Your task to perform on an android device: Go to network settings Image 0: 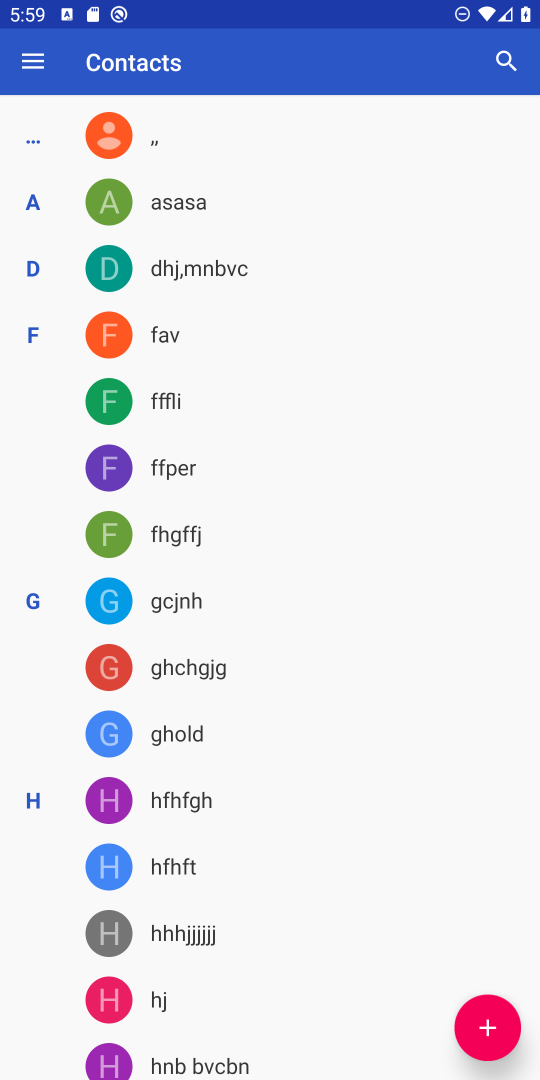
Step 0: press home button
Your task to perform on an android device: Go to network settings Image 1: 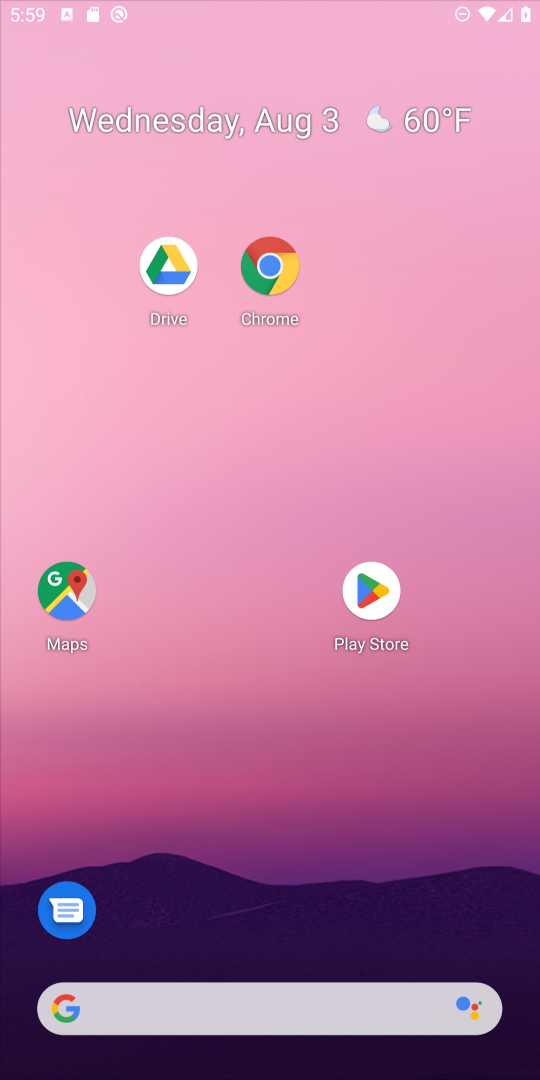
Step 1: drag from (281, 1019) to (385, 78)
Your task to perform on an android device: Go to network settings Image 2: 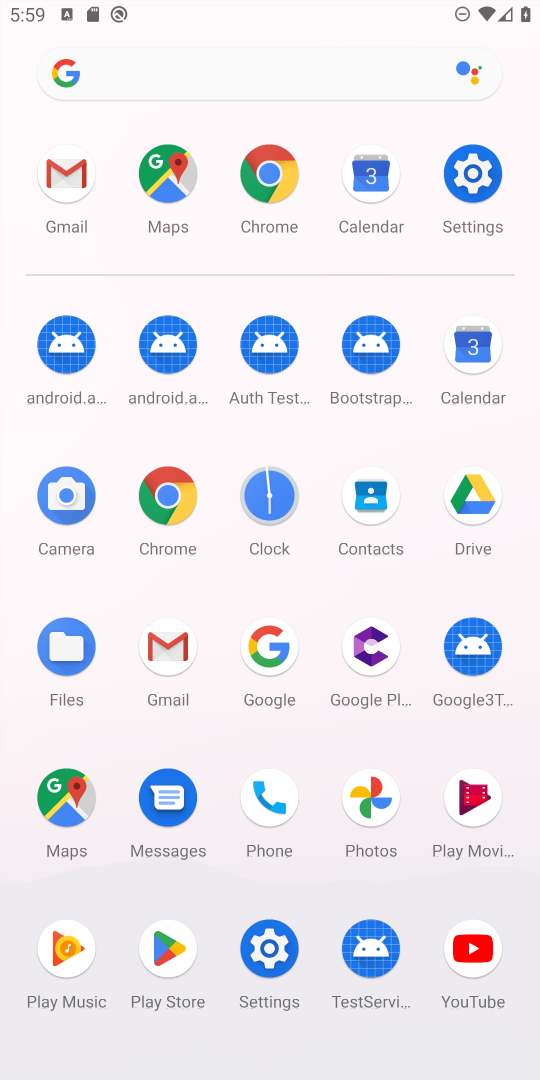
Step 2: click (484, 157)
Your task to perform on an android device: Go to network settings Image 3: 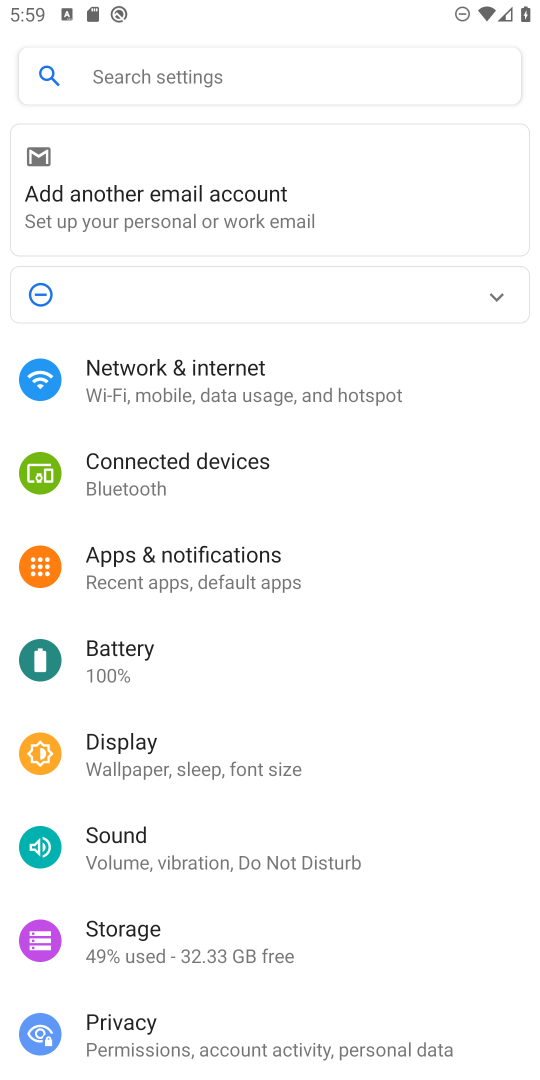
Step 3: click (203, 371)
Your task to perform on an android device: Go to network settings Image 4: 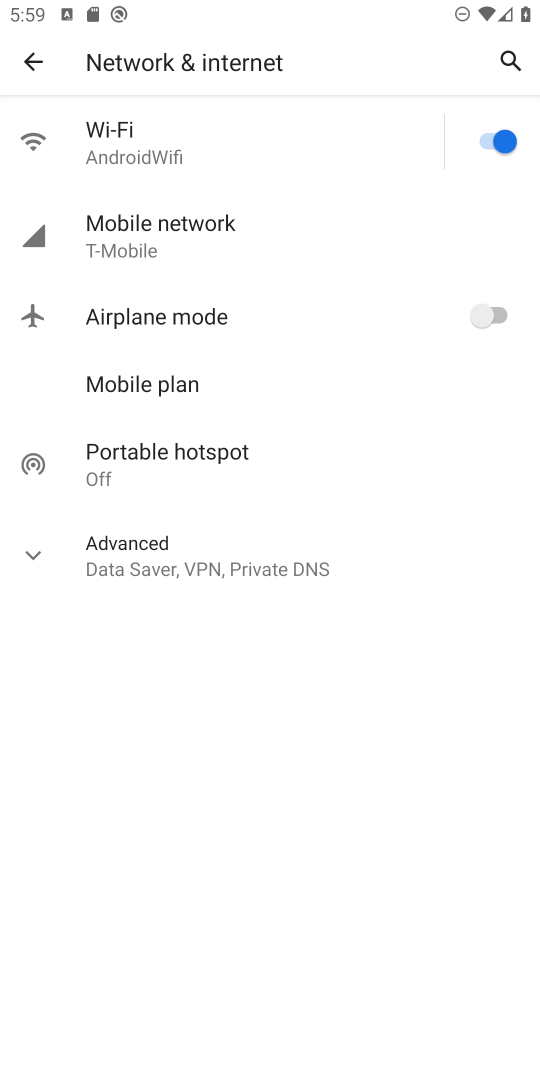
Step 4: task complete